Your task to perform on an android device: make emails show in primary in the gmail app Image 0: 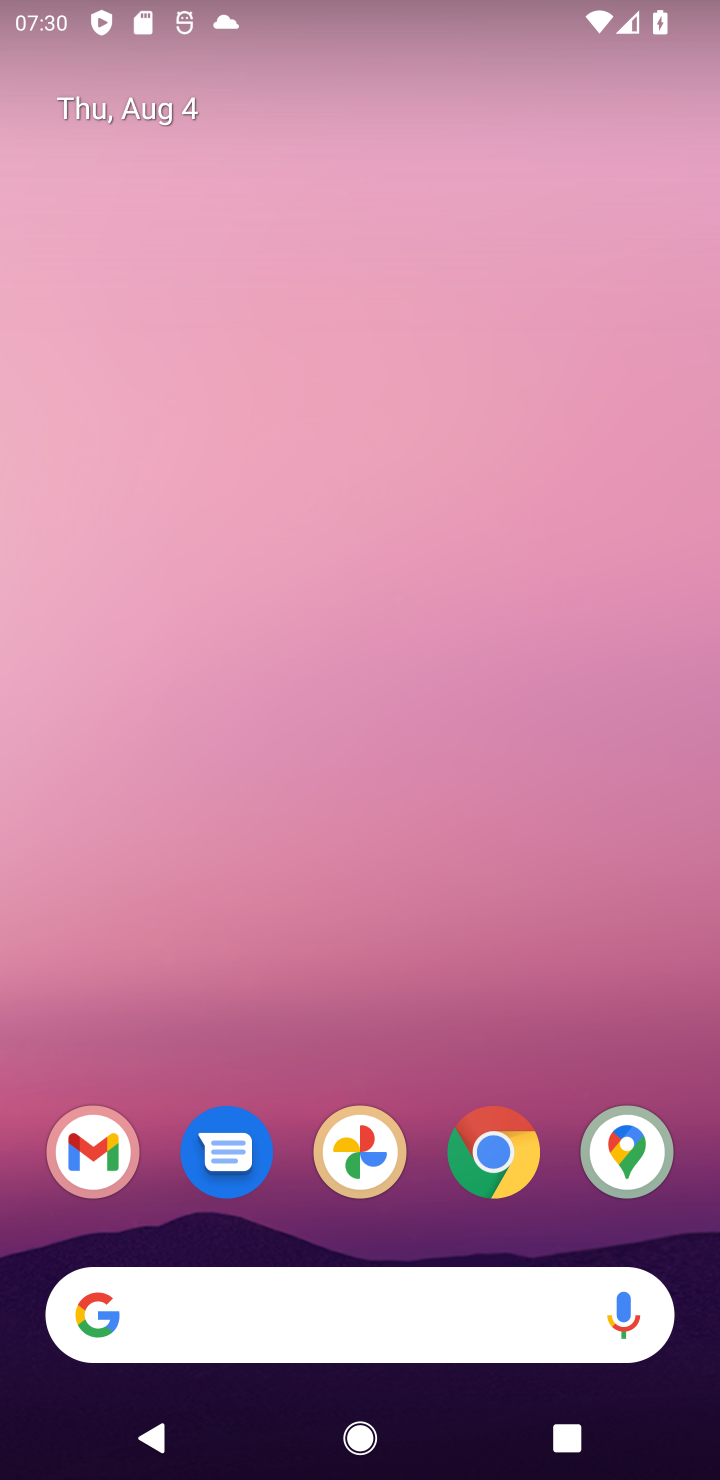
Step 0: press home button
Your task to perform on an android device: make emails show in primary in the gmail app Image 1: 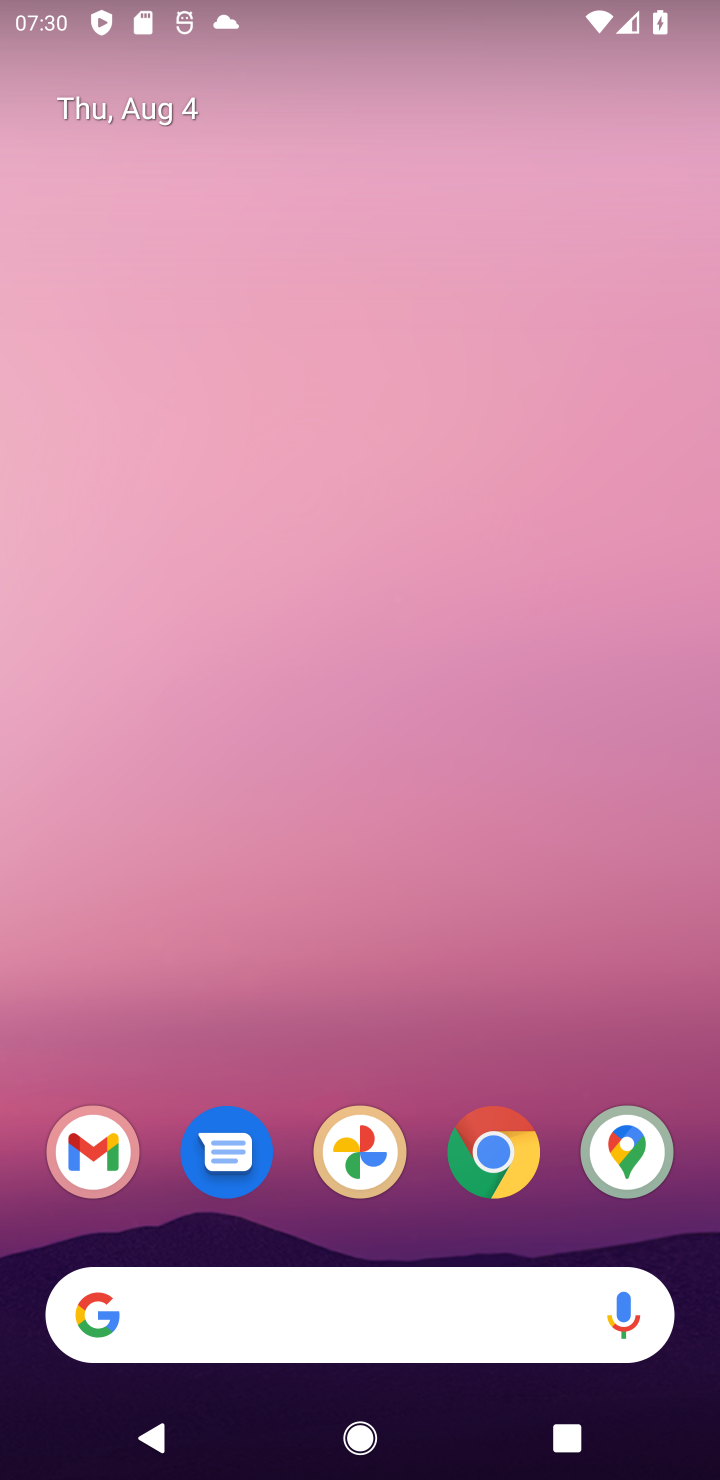
Step 1: drag from (352, 505) to (539, 0)
Your task to perform on an android device: make emails show in primary in the gmail app Image 2: 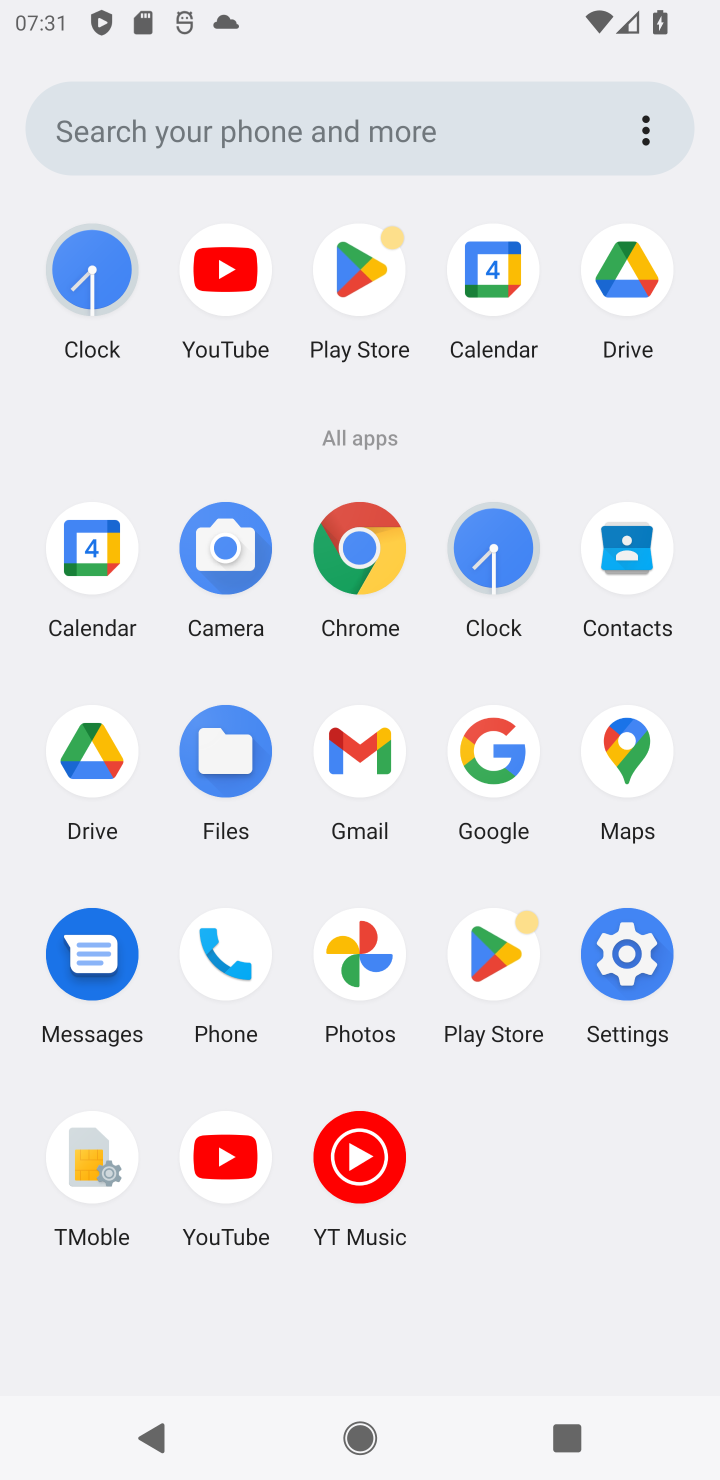
Step 2: click (375, 759)
Your task to perform on an android device: make emails show in primary in the gmail app Image 3: 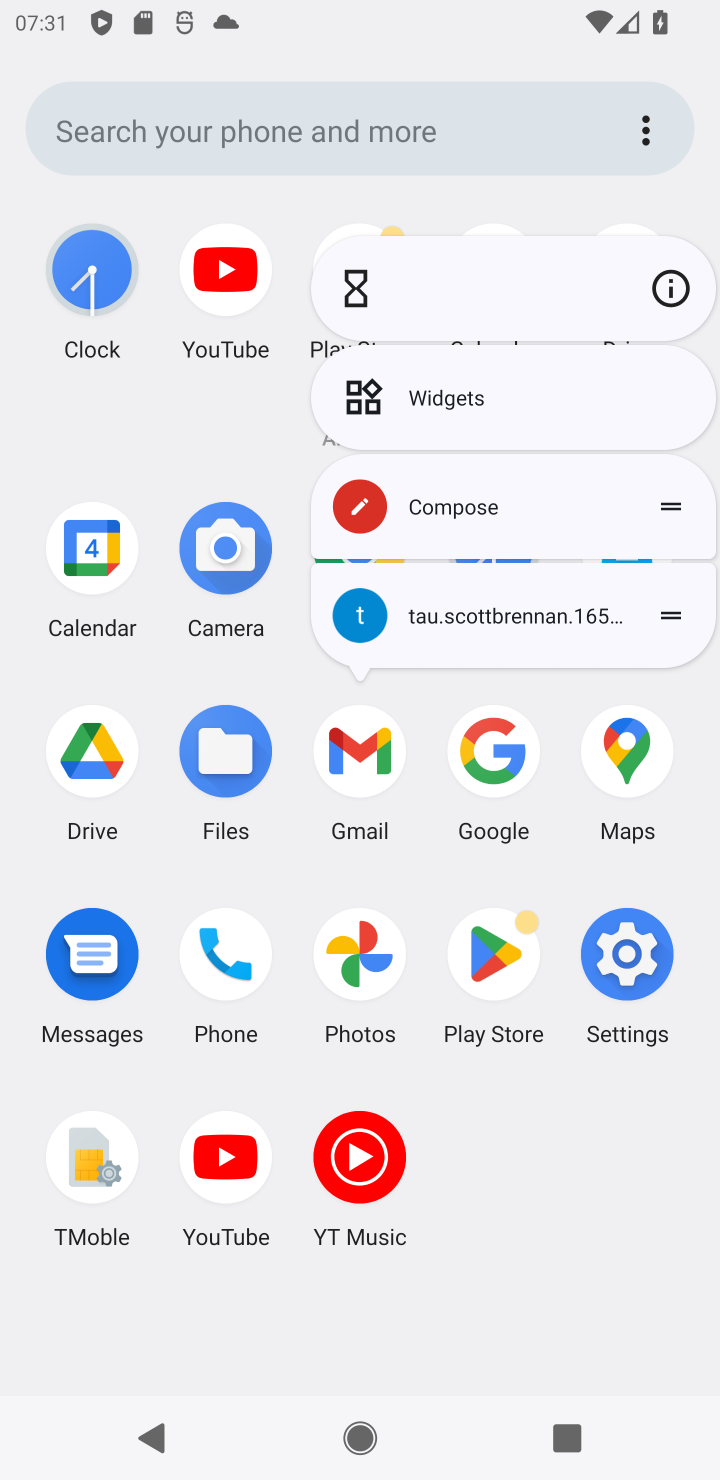
Step 3: click (375, 759)
Your task to perform on an android device: make emails show in primary in the gmail app Image 4: 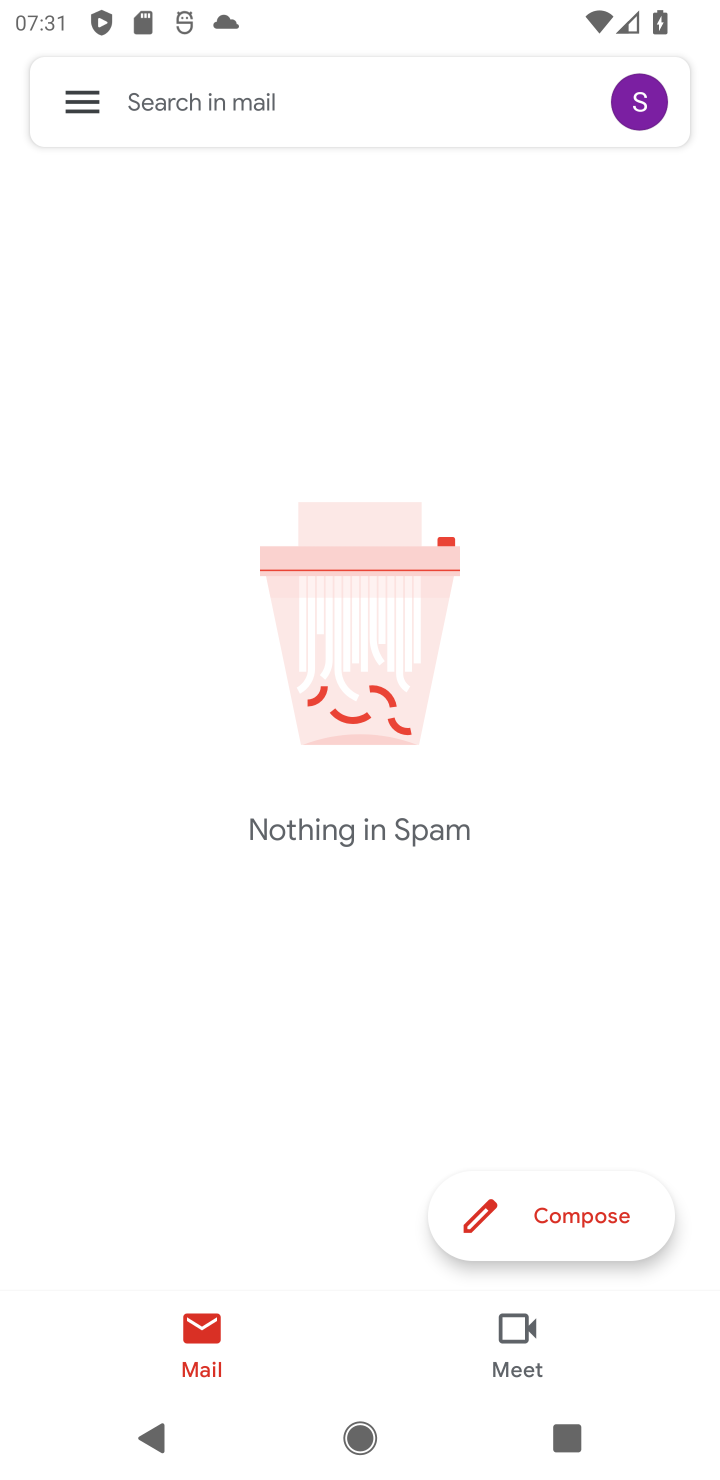
Step 4: click (88, 99)
Your task to perform on an android device: make emails show in primary in the gmail app Image 5: 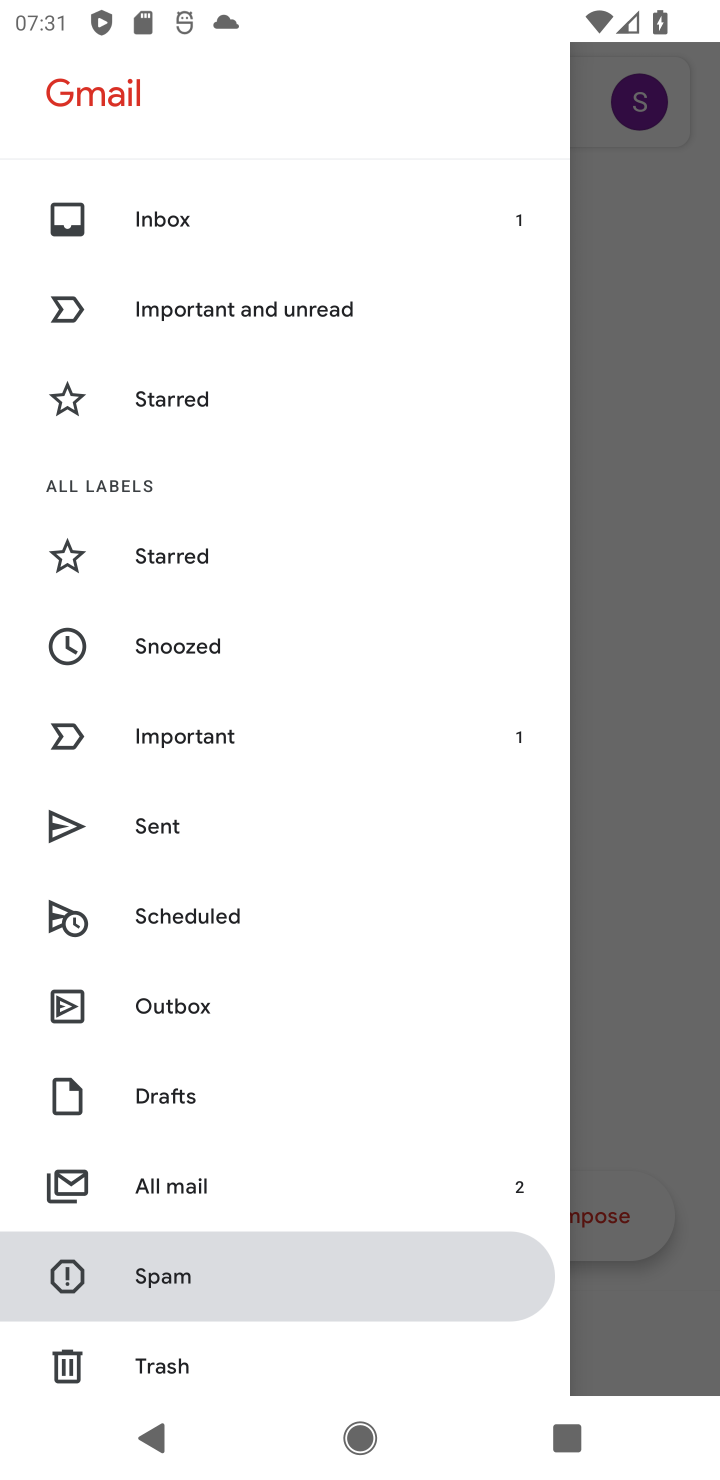
Step 5: task complete